Your task to perform on an android device: turn notification dots on Image 0: 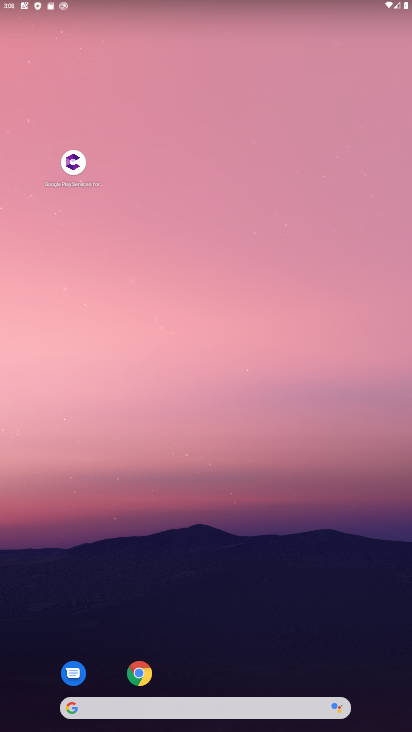
Step 0: drag from (180, 705) to (310, 20)
Your task to perform on an android device: turn notification dots on Image 1: 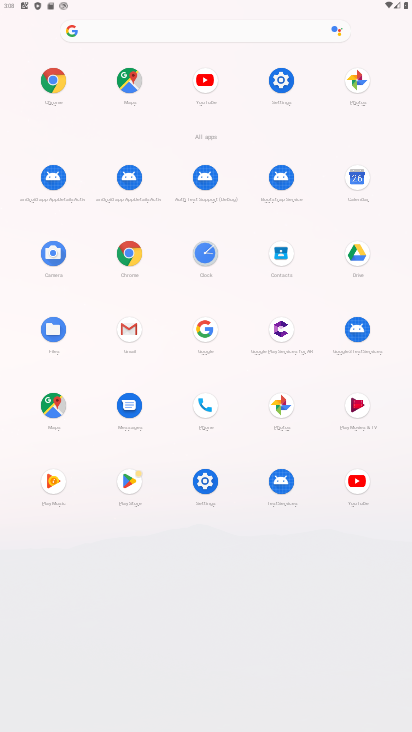
Step 1: click (281, 79)
Your task to perform on an android device: turn notification dots on Image 2: 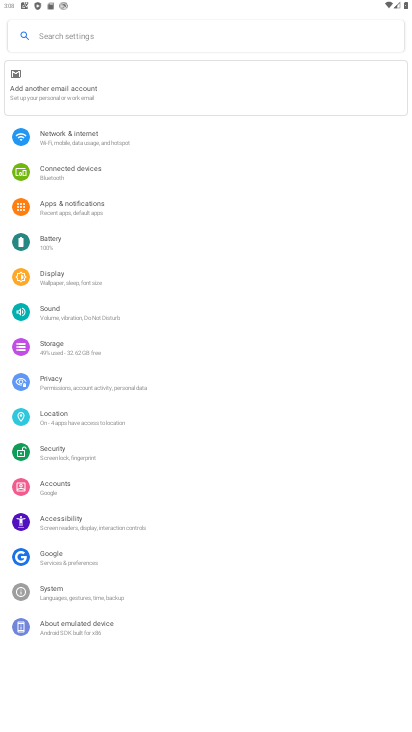
Step 2: click (73, 213)
Your task to perform on an android device: turn notification dots on Image 3: 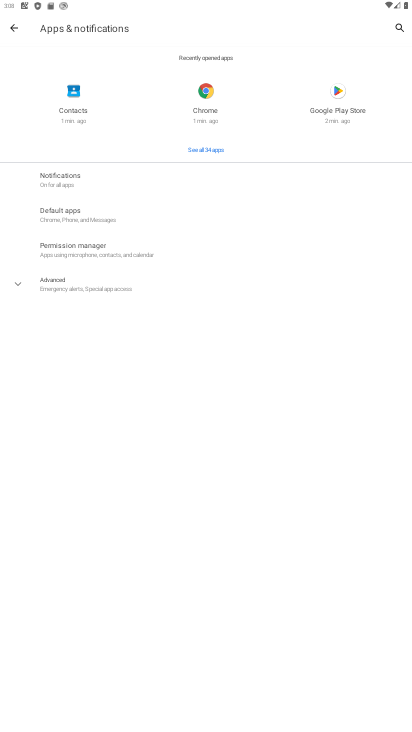
Step 3: click (58, 177)
Your task to perform on an android device: turn notification dots on Image 4: 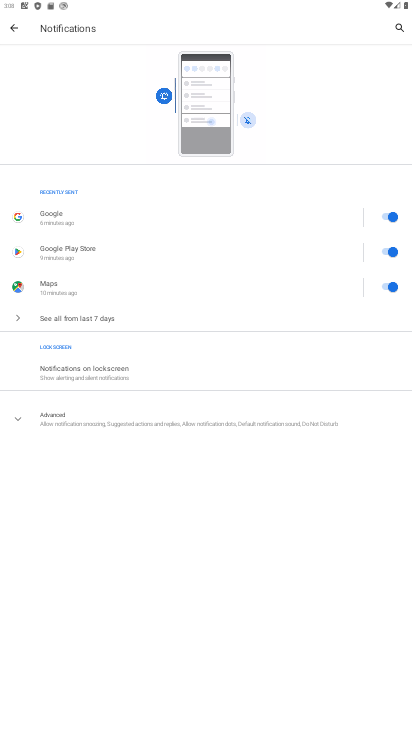
Step 4: click (97, 423)
Your task to perform on an android device: turn notification dots on Image 5: 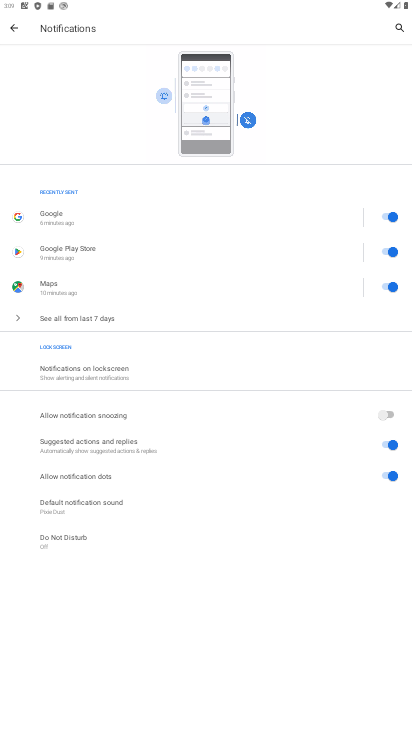
Step 5: task complete